Your task to perform on an android device: Search for the best rated drill on Lowes.com Image 0: 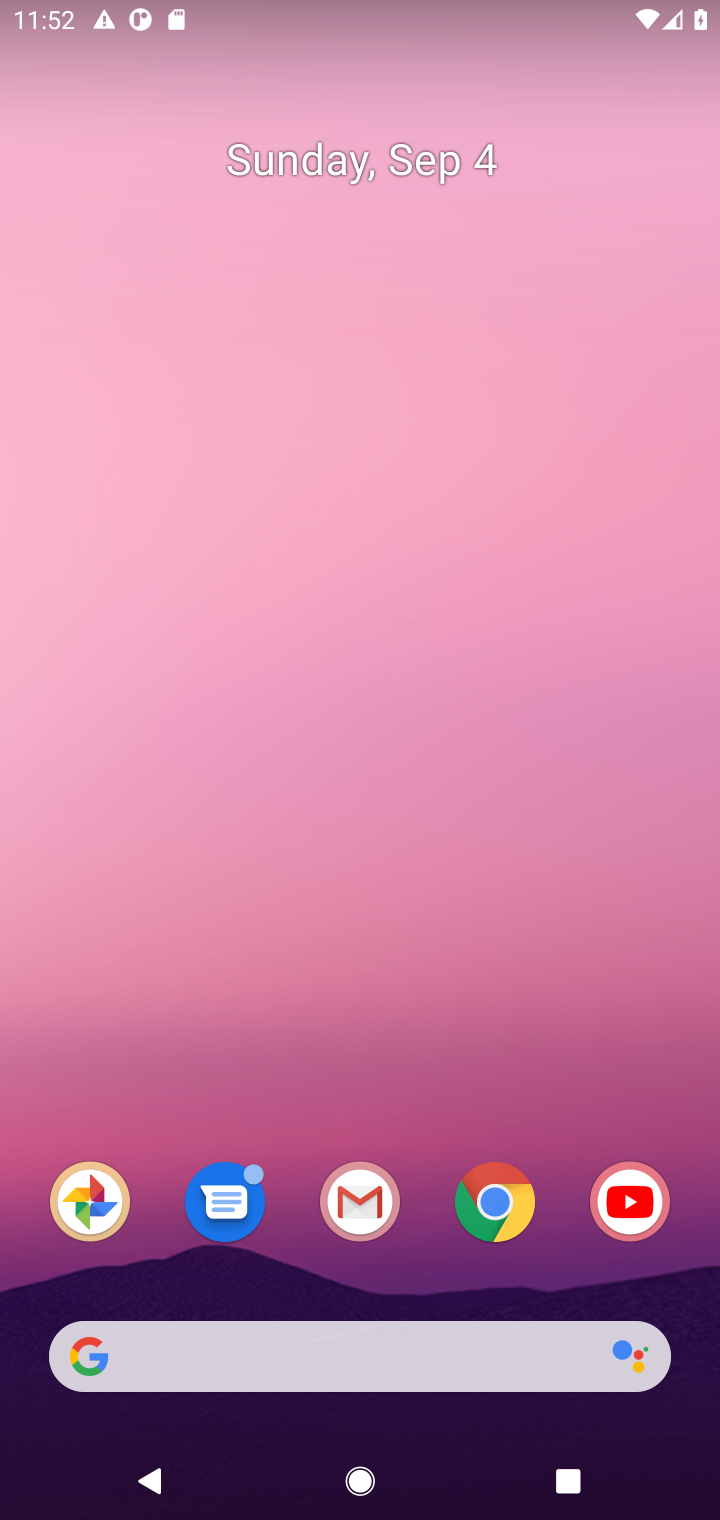
Step 0: drag from (538, 248) to (563, 8)
Your task to perform on an android device: Search for the best rated drill on Lowes.com Image 1: 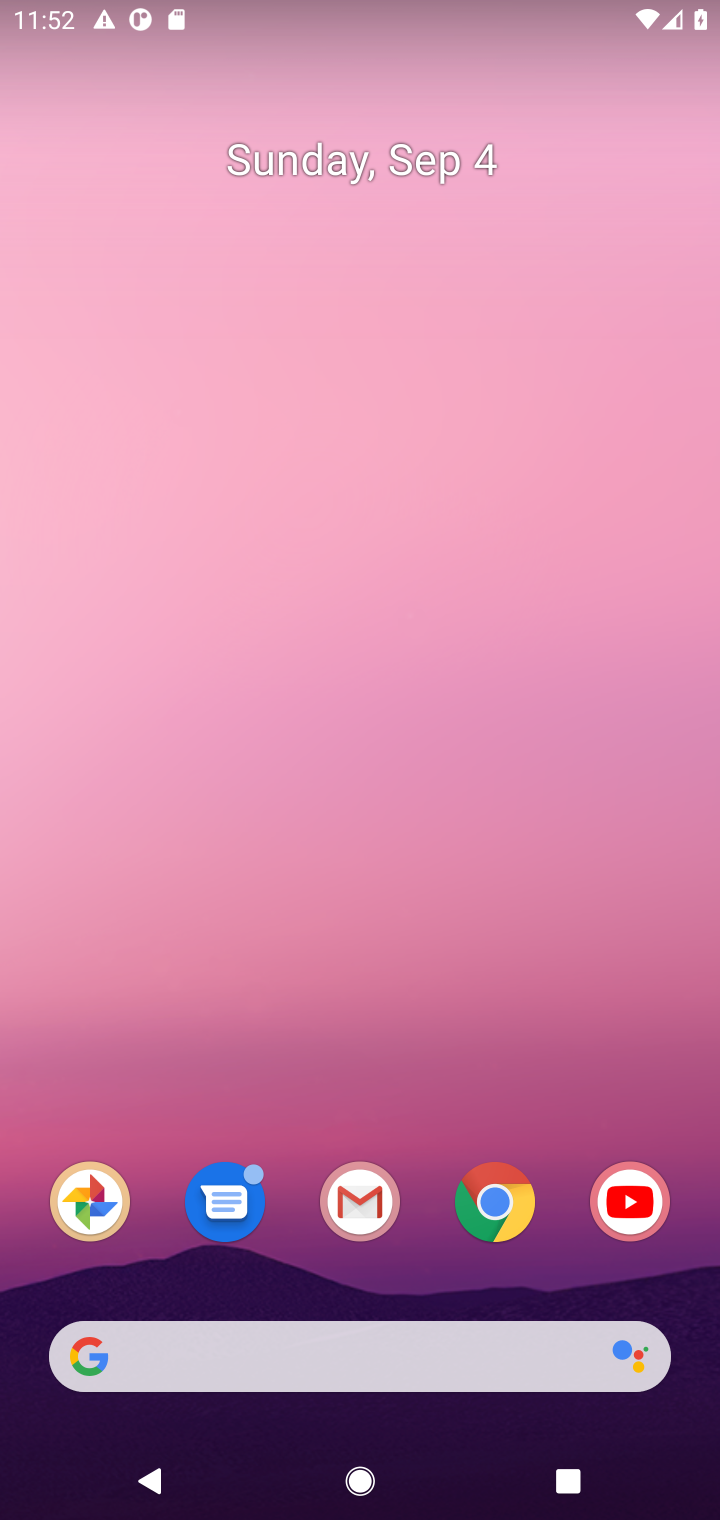
Step 1: drag from (533, 898) to (617, 62)
Your task to perform on an android device: Search for the best rated drill on Lowes.com Image 2: 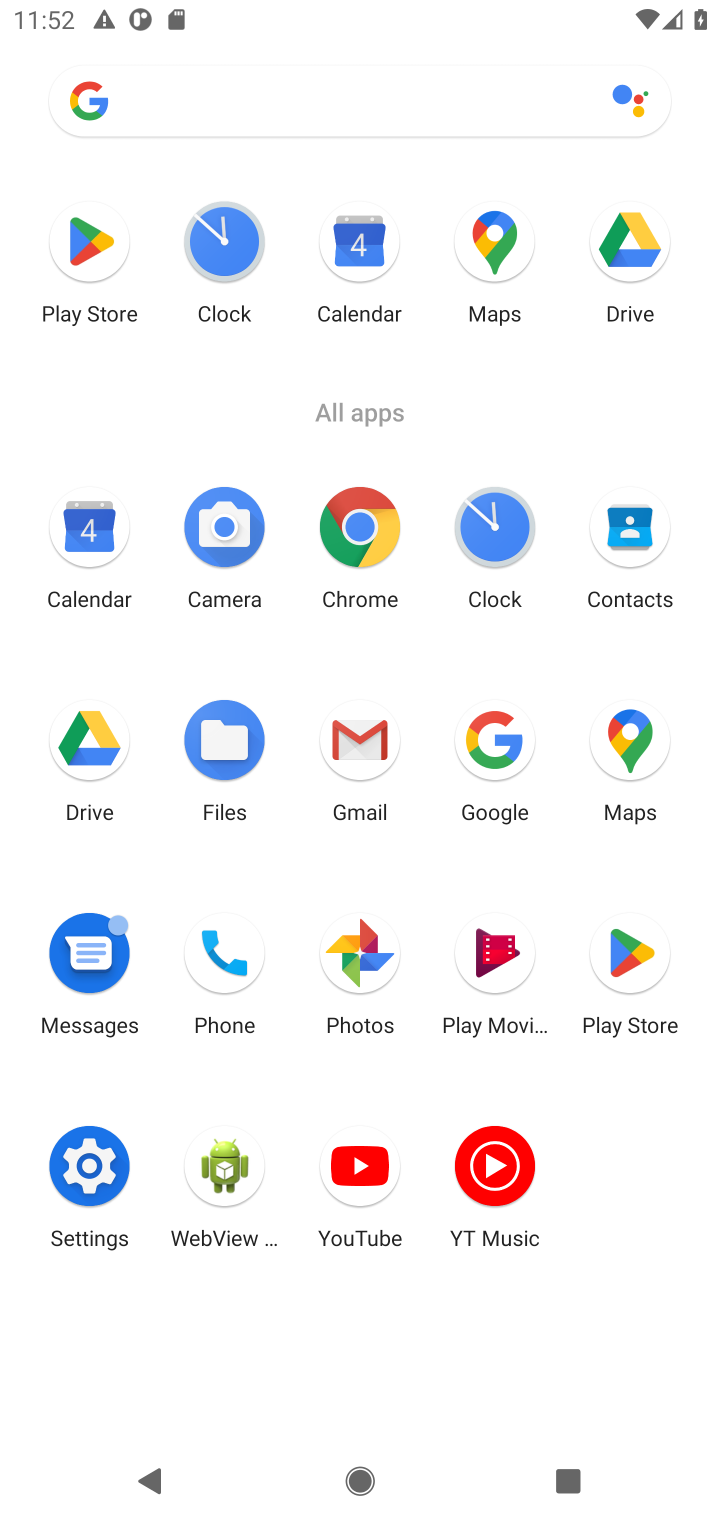
Step 2: click (364, 524)
Your task to perform on an android device: Search for the best rated drill on Lowes.com Image 3: 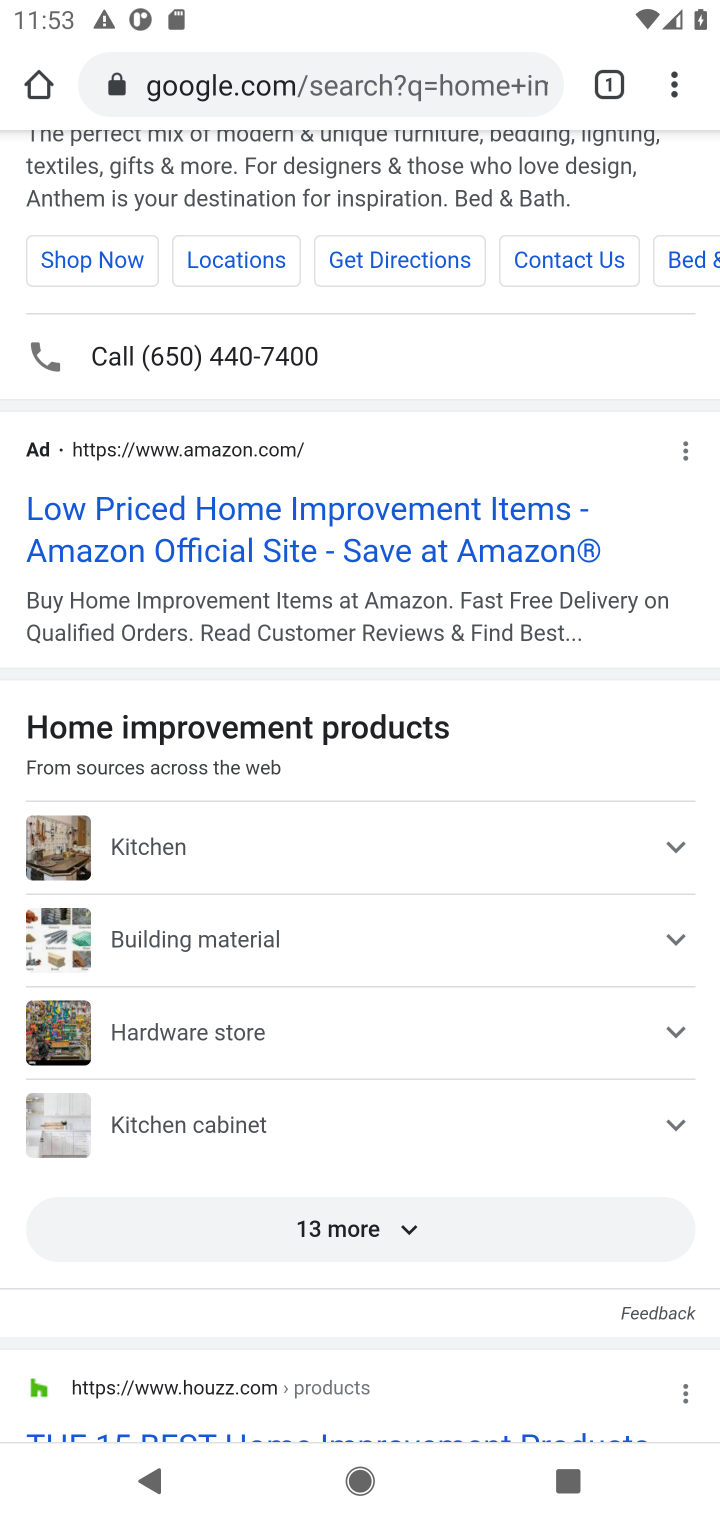
Step 3: drag from (419, 343) to (555, 1328)
Your task to perform on an android device: Search for the best rated drill on Lowes.com Image 4: 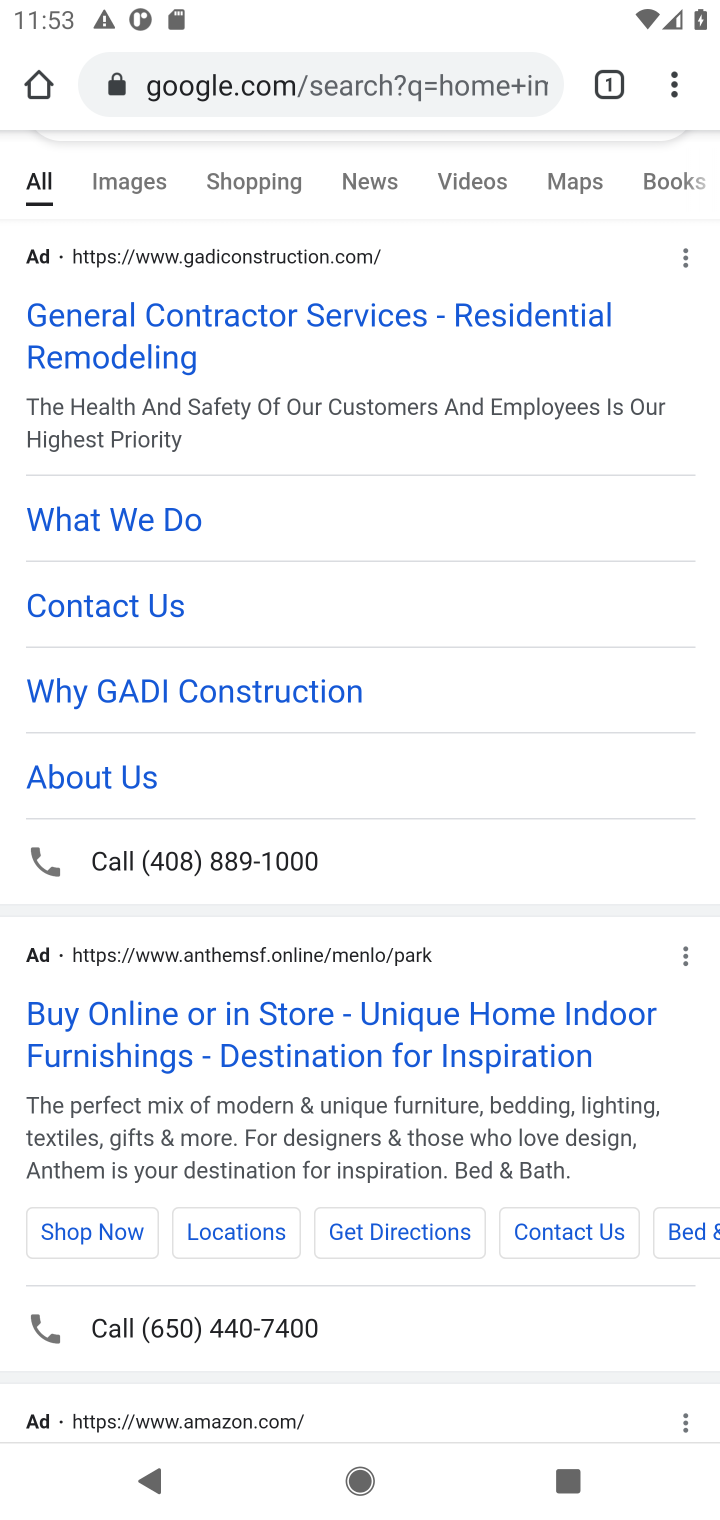
Step 4: click (427, 84)
Your task to perform on an android device: Search for the best rated drill on Lowes.com Image 5: 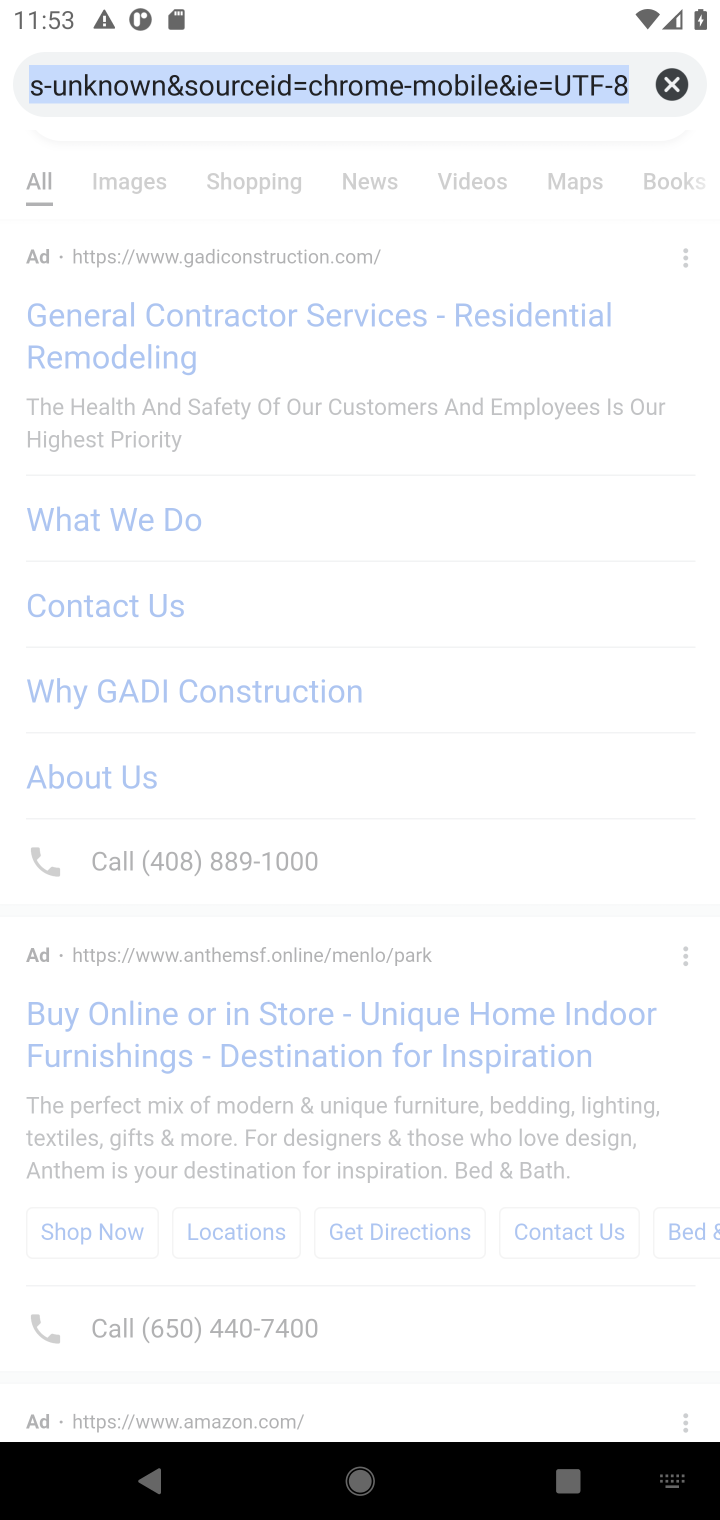
Step 5: type "best rated drill on Lowes.com"
Your task to perform on an android device: Search for the best rated drill on Lowes.com Image 6: 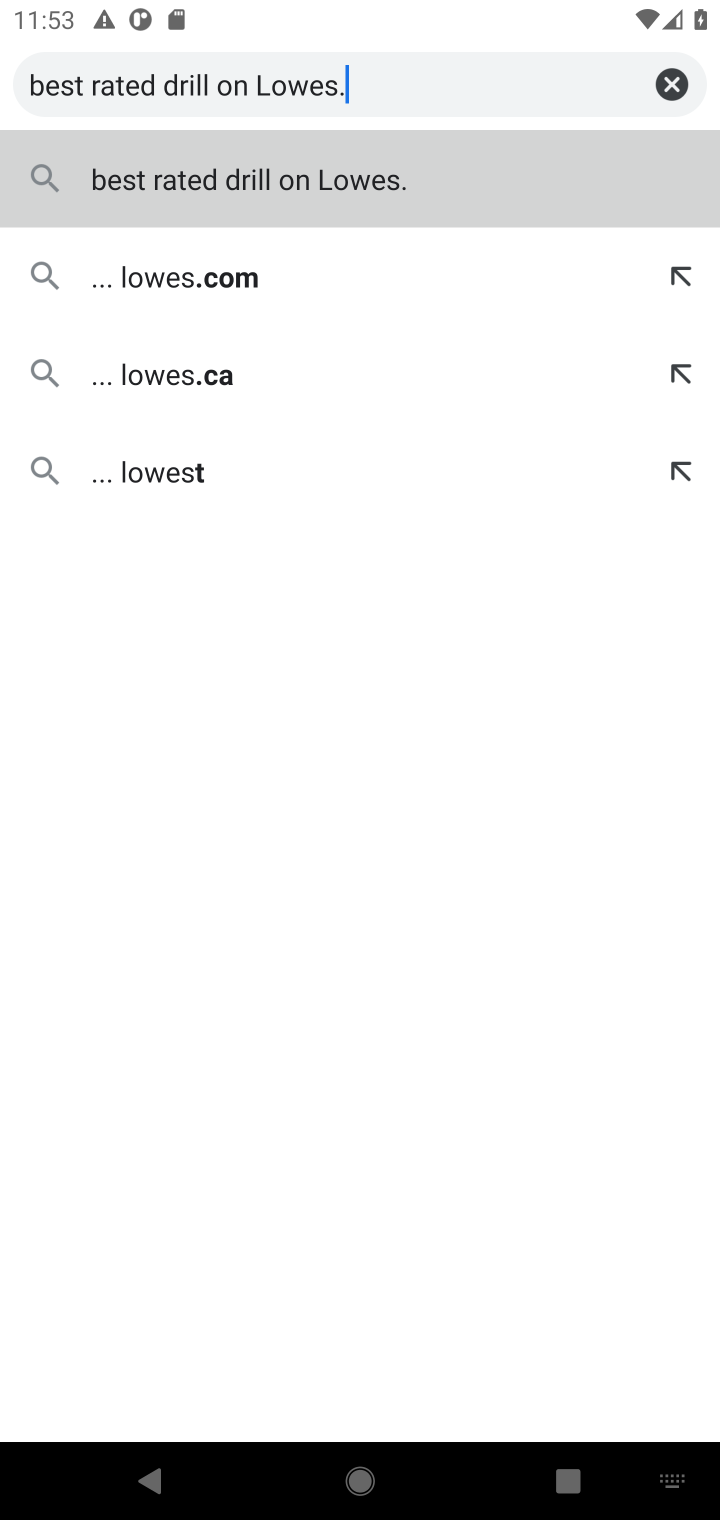
Step 6: click (340, 204)
Your task to perform on an android device: Search for the best rated drill on Lowes.com Image 7: 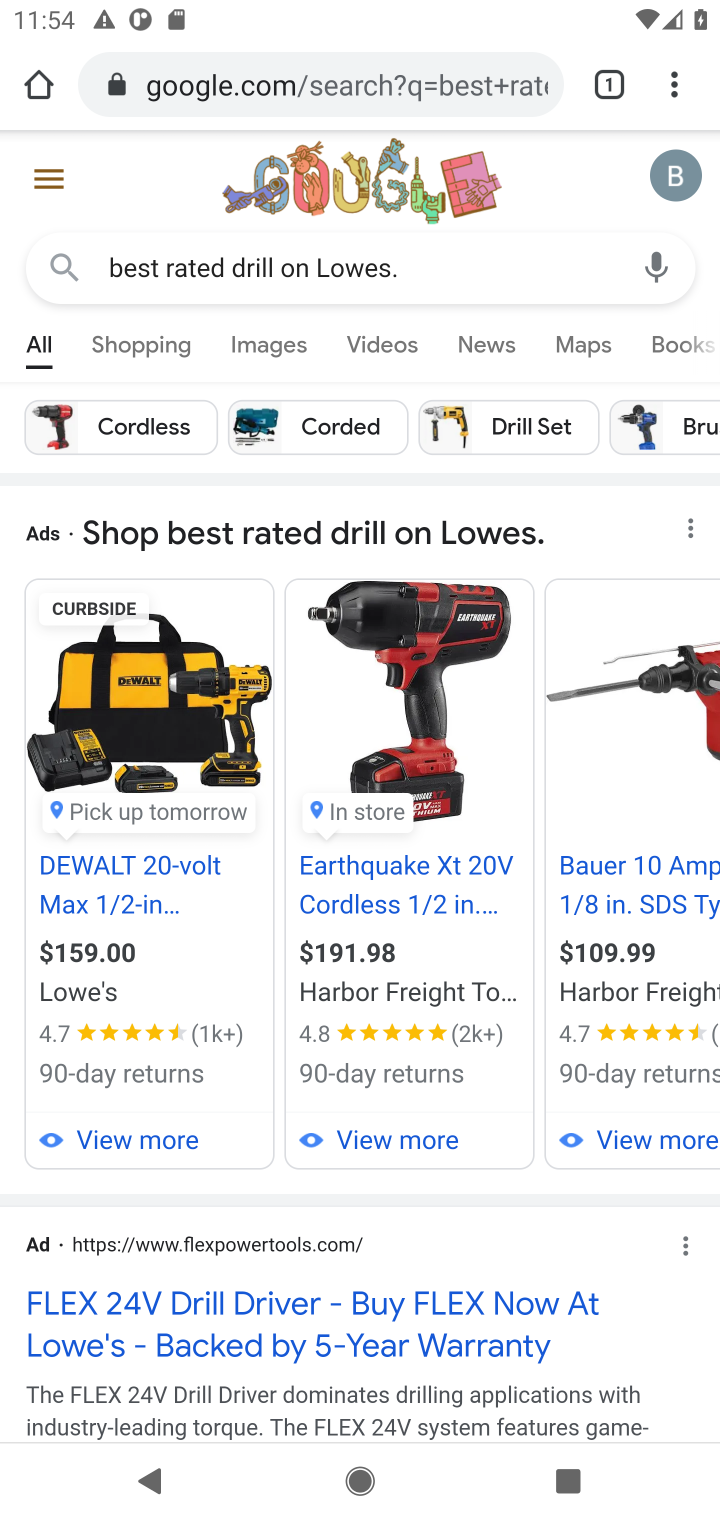
Step 7: drag from (280, 1239) to (428, 49)
Your task to perform on an android device: Search for the best rated drill on Lowes.com Image 8: 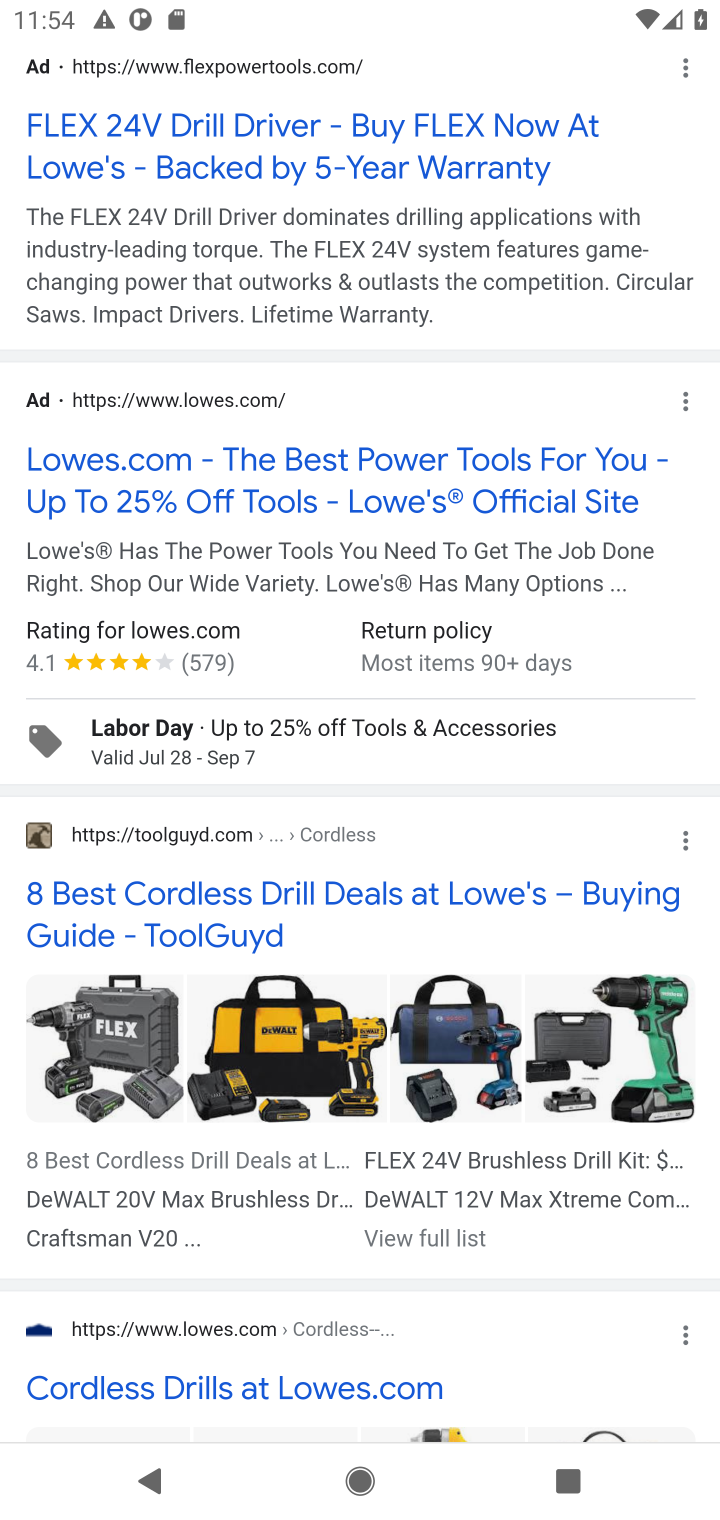
Step 8: drag from (368, 1091) to (411, 316)
Your task to perform on an android device: Search for the best rated drill on Lowes.com Image 9: 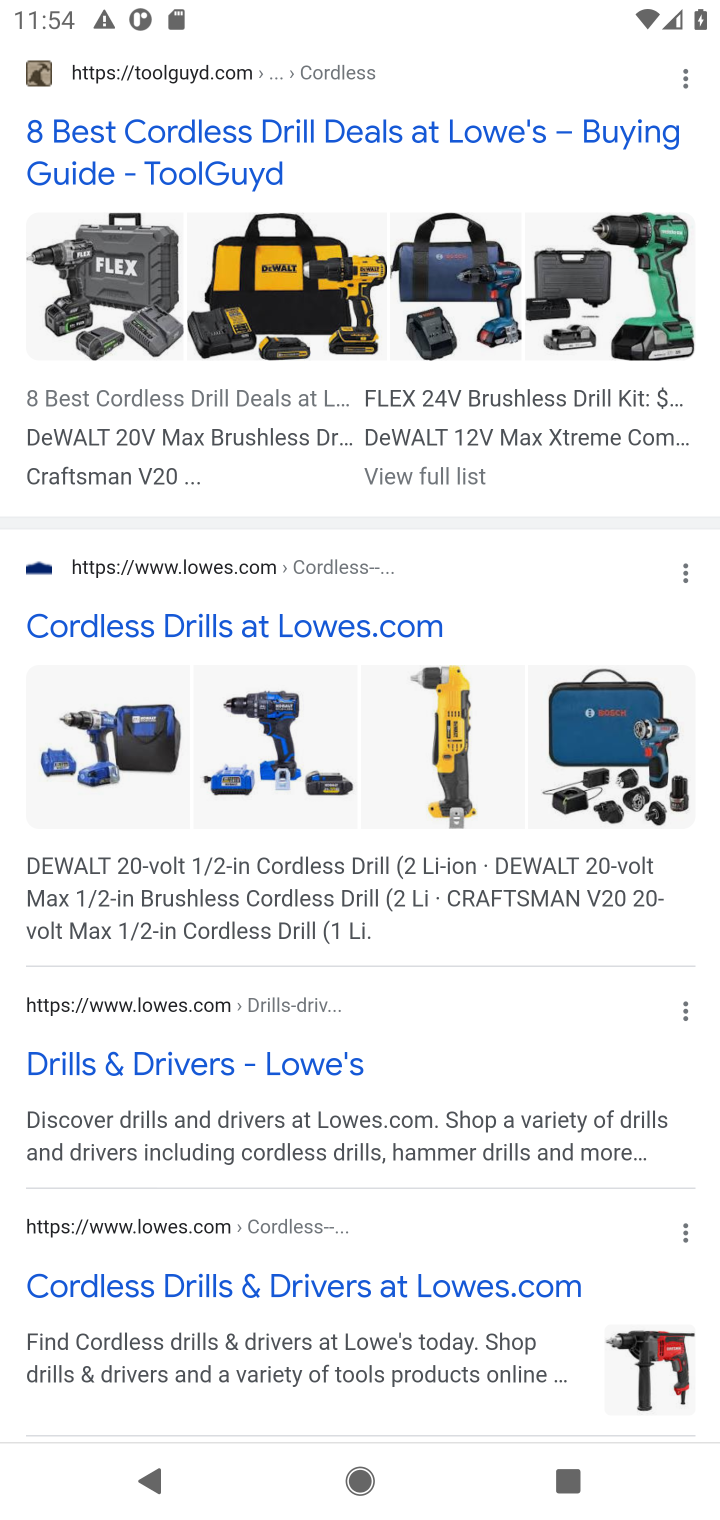
Step 9: click (343, 652)
Your task to perform on an android device: Search for the best rated drill on Lowes.com Image 10: 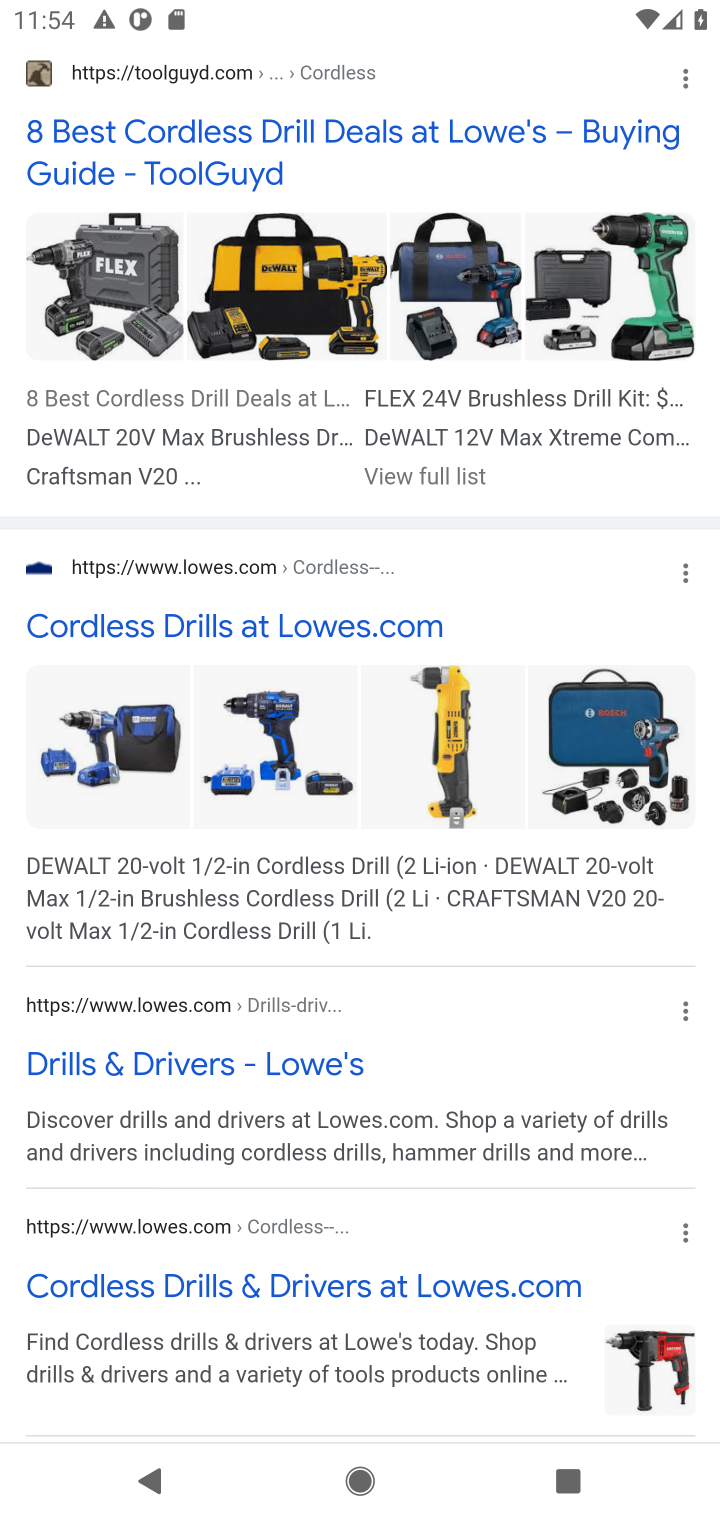
Step 10: click (345, 645)
Your task to perform on an android device: Search for the best rated drill on Lowes.com Image 11: 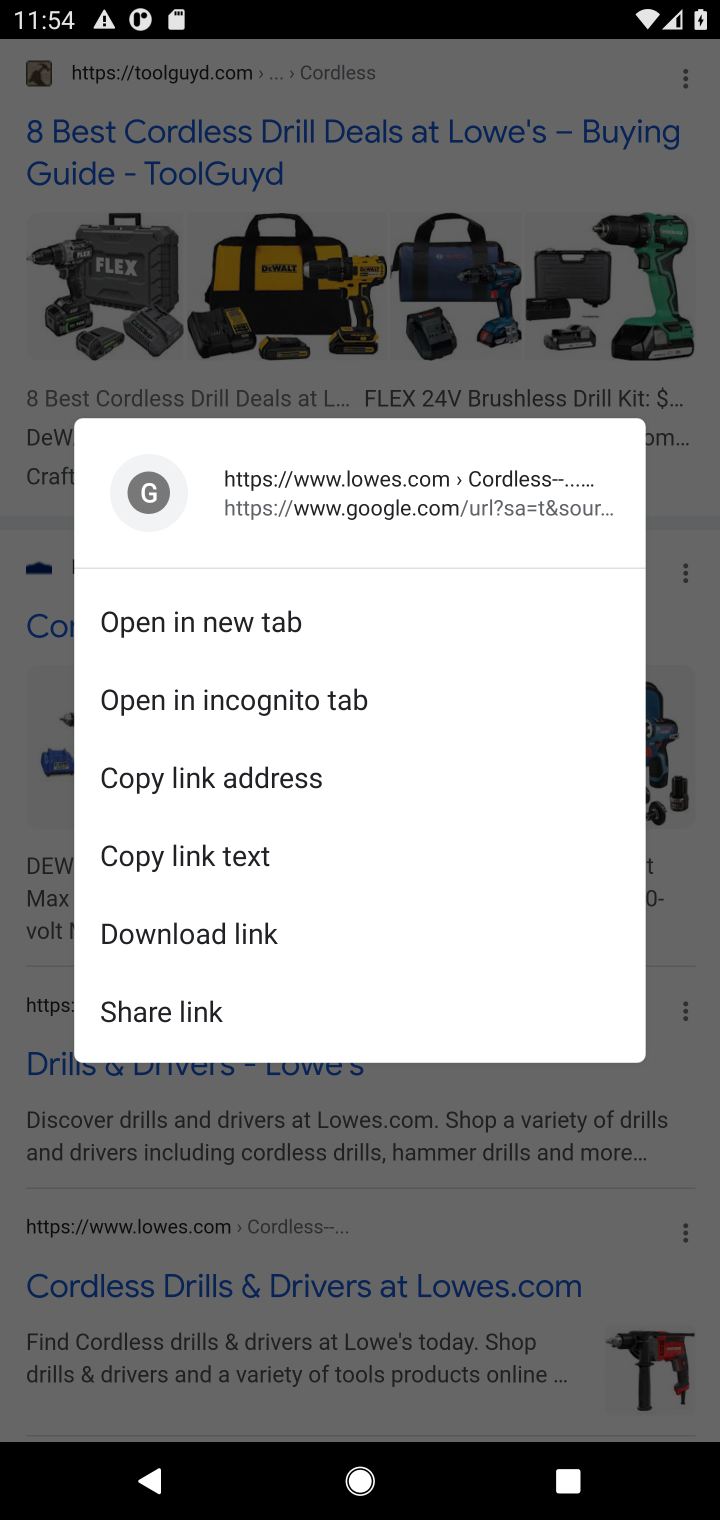
Step 11: click (434, 377)
Your task to perform on an android device: Search for the best rated drill on Lowes.com Image 12: 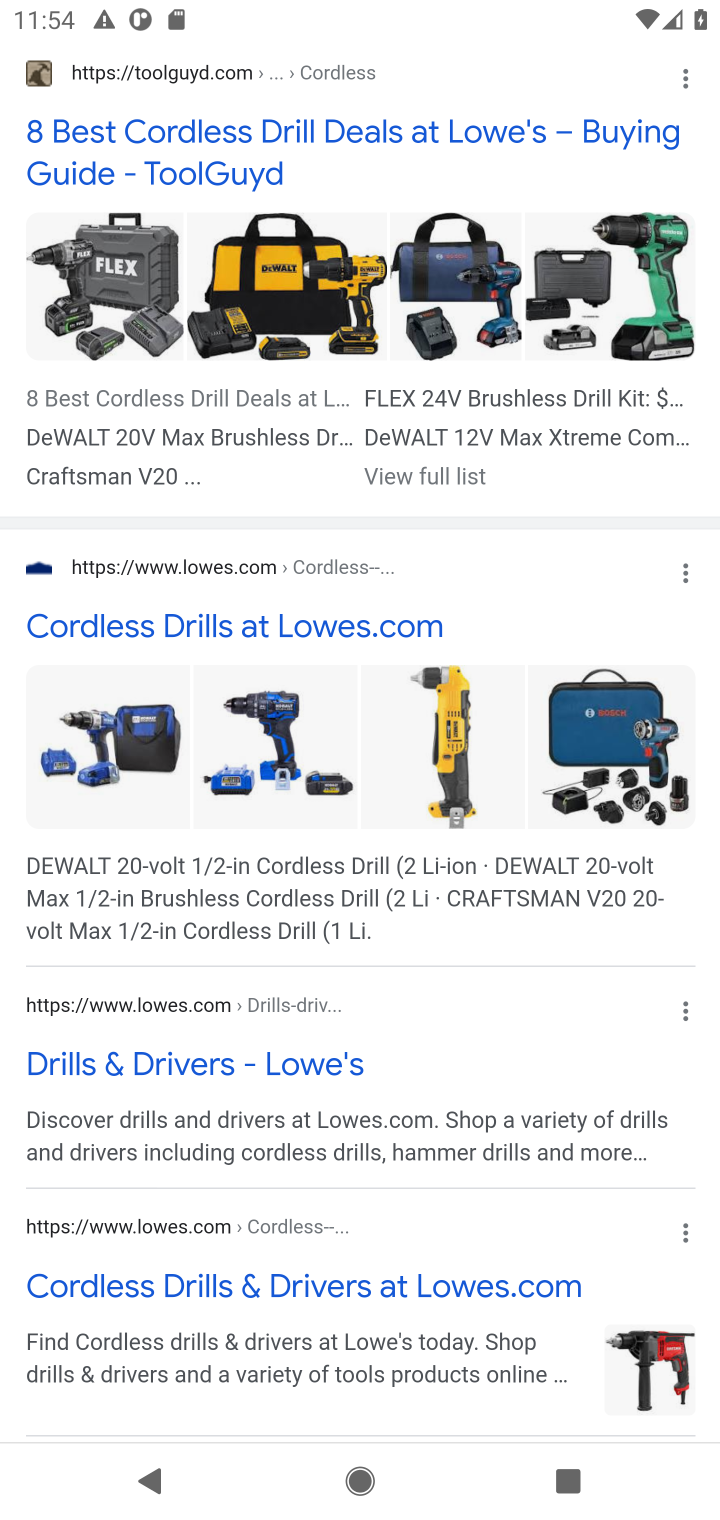
Step 12: click (265, 624)
Your task to perform on an android device: Search for the best rated drill on Lowes.com Image 13: 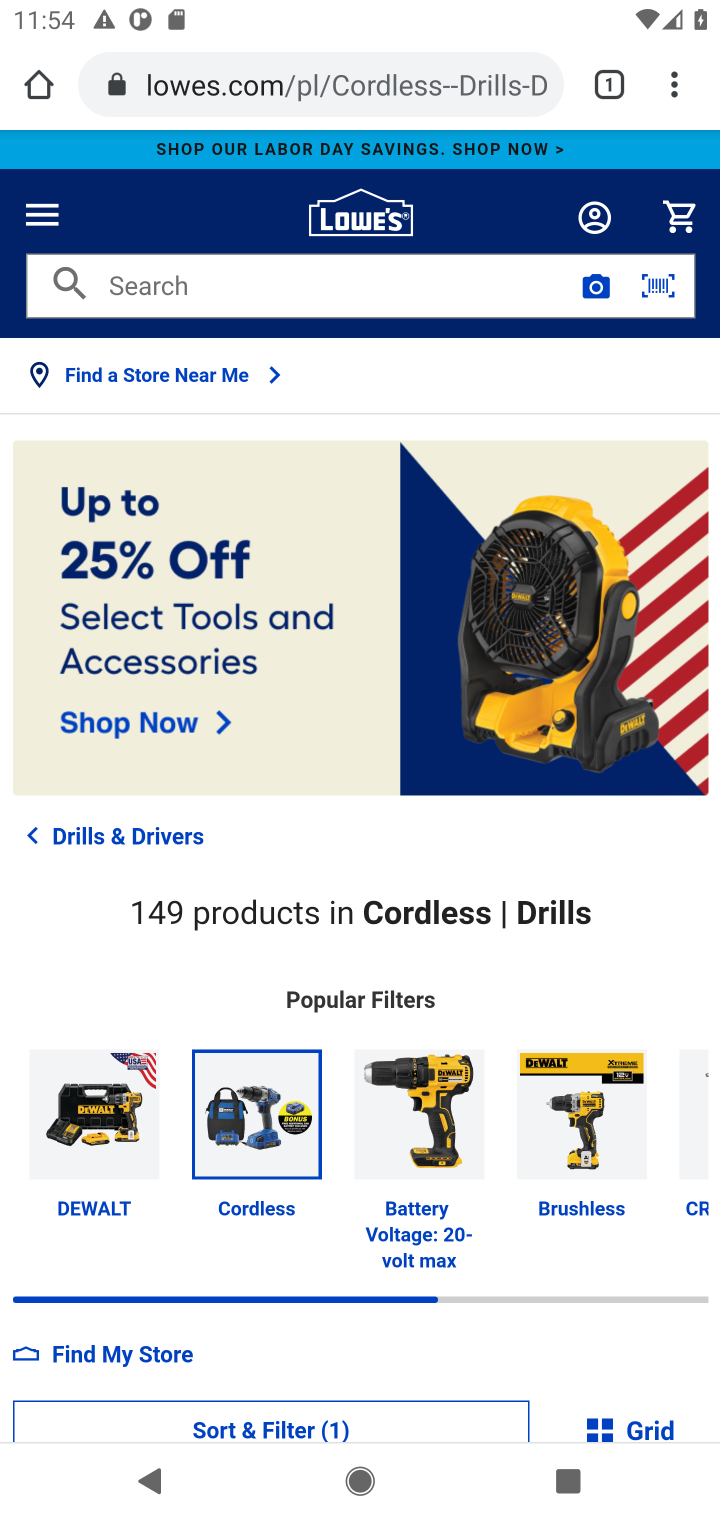
Step 13: task complete